Your task to perform on an android device: Open maps Image 0: 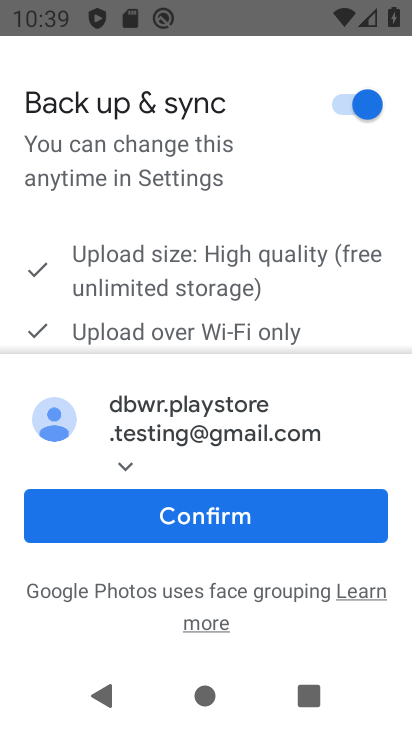
Step 0: press home button
Your task to perform on an android device: Open maps Image 1: 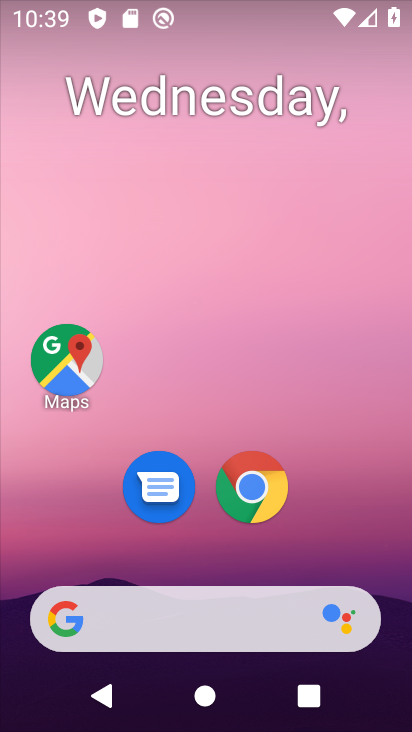
Step 1: click (55, 358)
Your task to perform on an android device: Open maps Image 2: 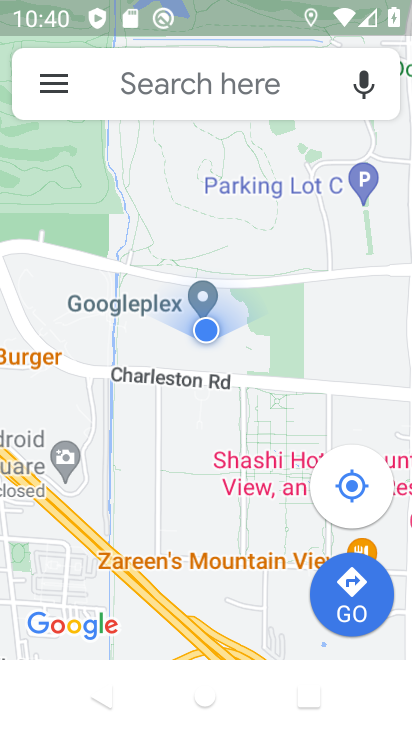
Step 2: task complete